Your task to perform on an android device: Open Google Chrome and open the bookmarks view Image 0: 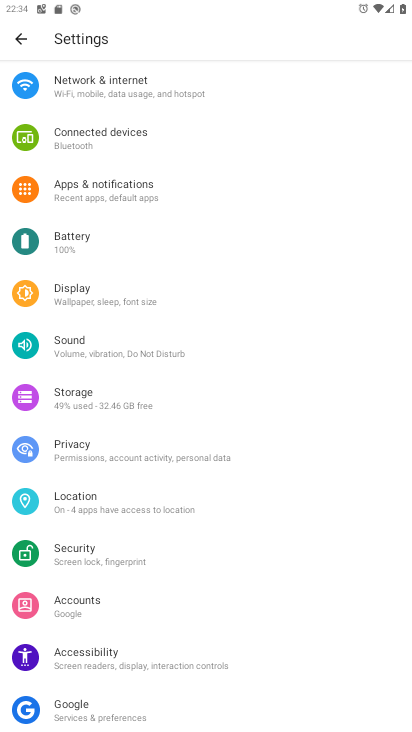
Step 0: press home button
Your task to perform on an android device: Open Google Chrome and open the bookmarks view Image 1: 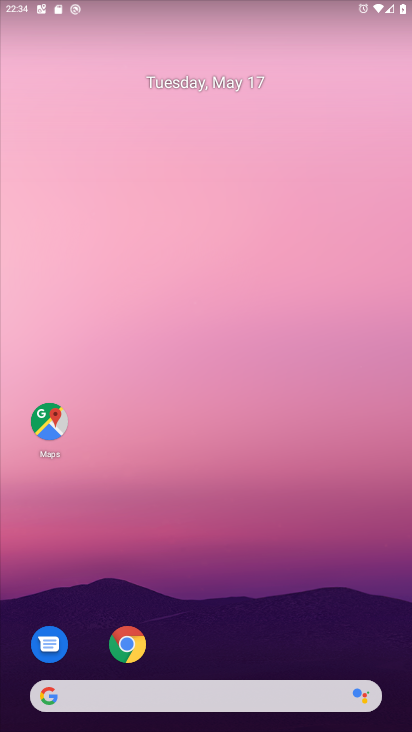
Step 1: click (120, 648)
Your task to perform on an android device: Open Google Chrome and open the bookmarks view Image 2: 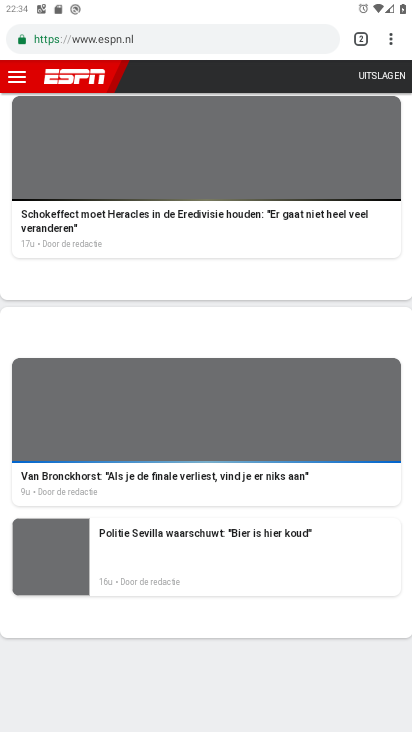
Step 2: click (393, 38)
Your task to perform on an android device: Open Google Chrome and open the bookmarks view Image 3: 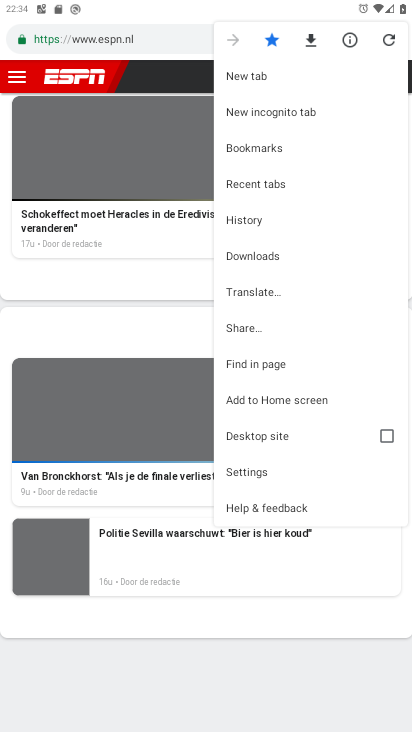
Step 3: click (270, 154)
Your task to perform on an android device: Open Google Chrome and open the bookmarks view Image 4: 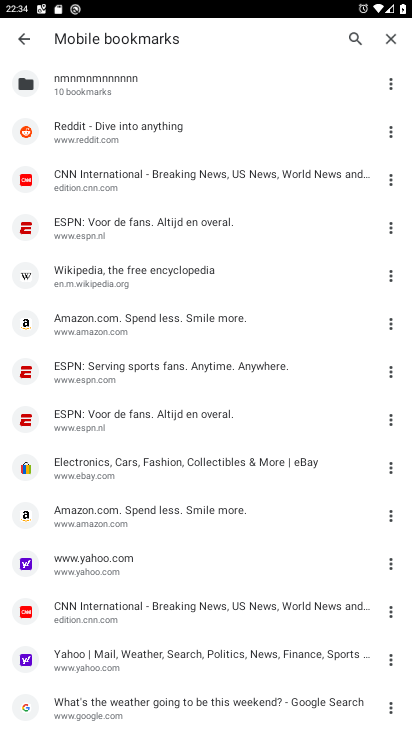
Step 4: task complete